Your task to perform on an android device: turn pop-ups off in chrome Image 0: 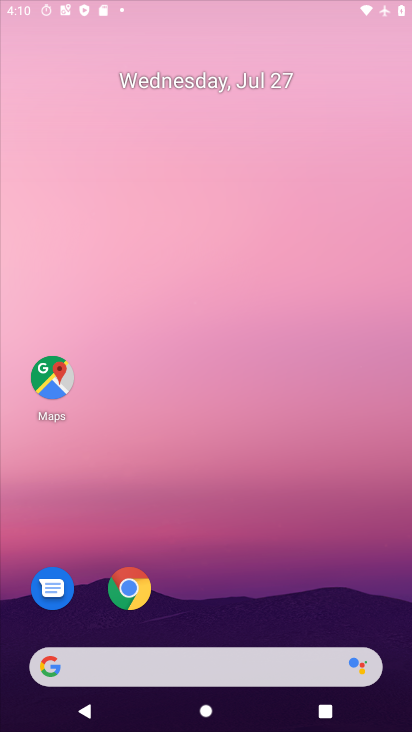
Step 0: press home button
Your task to perform on an android device: turn pop-ups off in chrome Image 1: 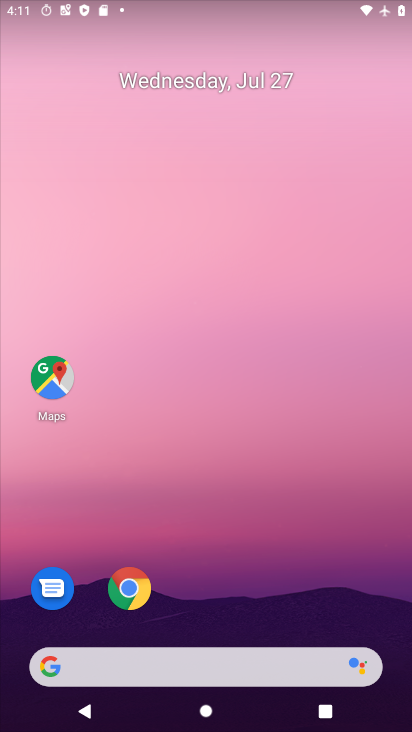
Step 1: drag from (274, 606) to (0, 179)
Your task to perform on an android device: turn pop-ups off in chrome Image 2: 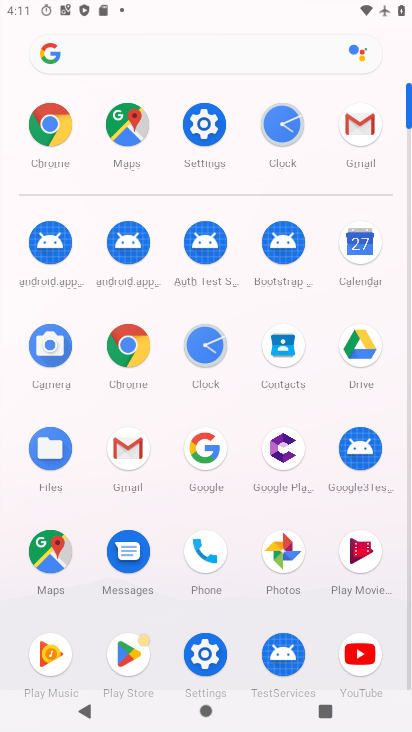
Step 2: click (50, 126)
Your task to perform on an android device: turn pop-ups off in chrome Image 3: 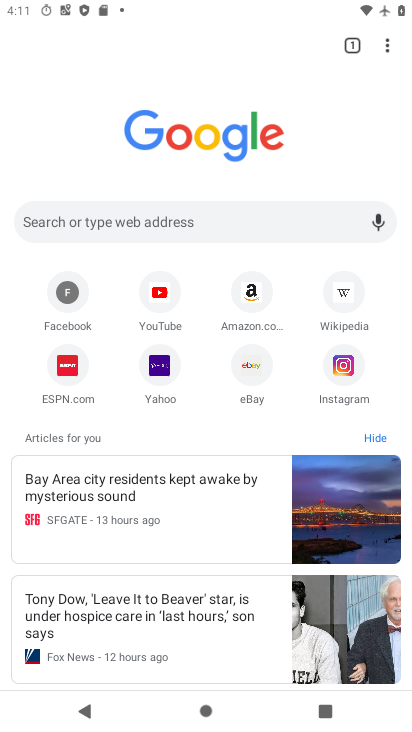
Step 3: click (388, 46)
Your task to perform on an android device: turn pop-ups off in chrome Image 4: 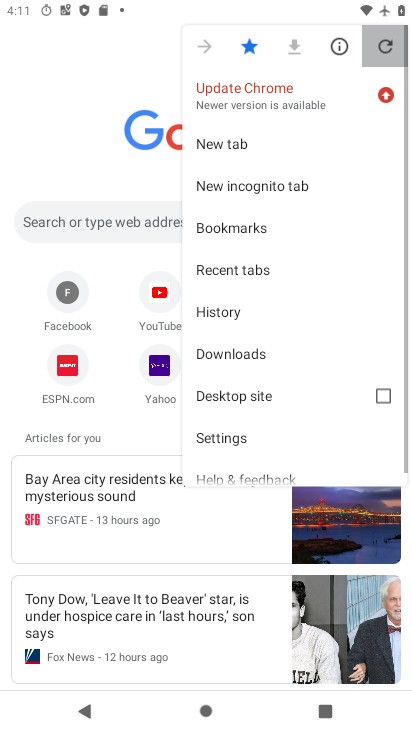
Step 4: drag from (388, 46) to (226, 437)
Your task to perform on an android device: turn pop-ups off in chrome Image 5: 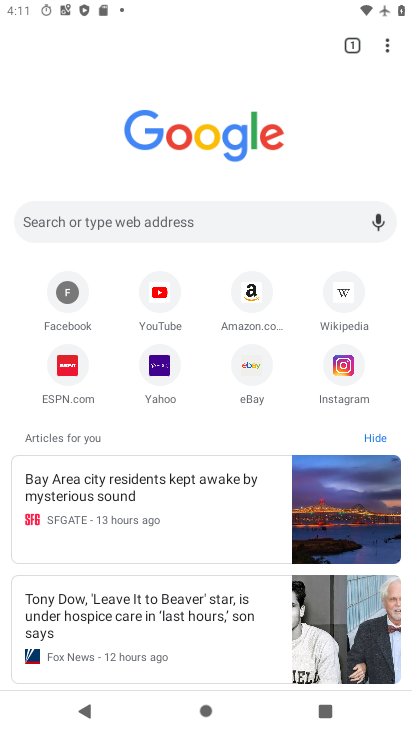
Step 5: click (226, 439)
Your task to perform on an android device: turn pop-ups off in chrome Image 6: 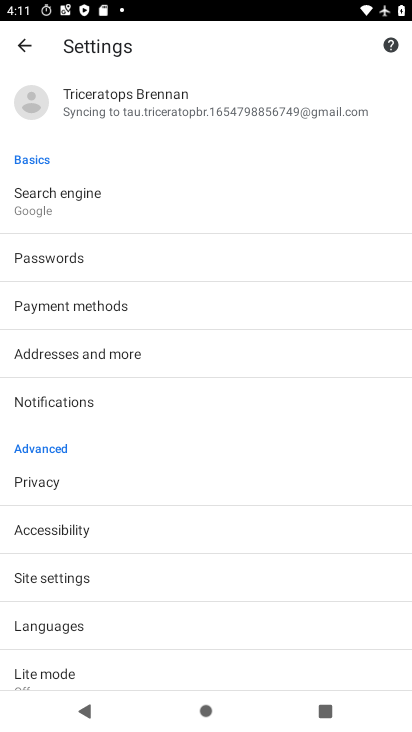
Step 6: click (62, 585)
Your task to perform on an android device: turn pop-ups off in chrome Image 7: 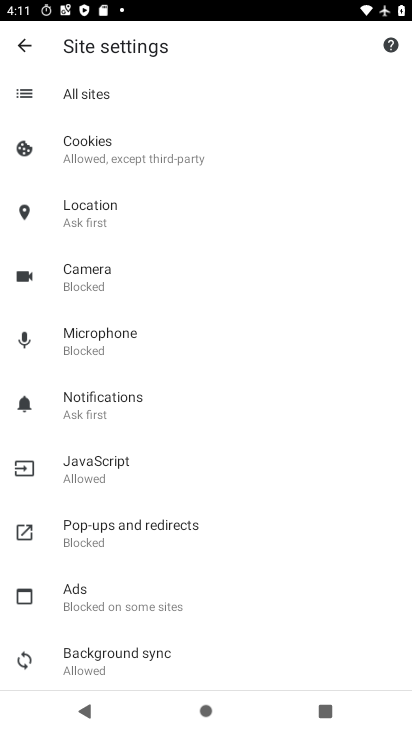
Step 7: click (139, 522)
Your task to perform on an android device: turn pop-ups off in chrome Image 8: 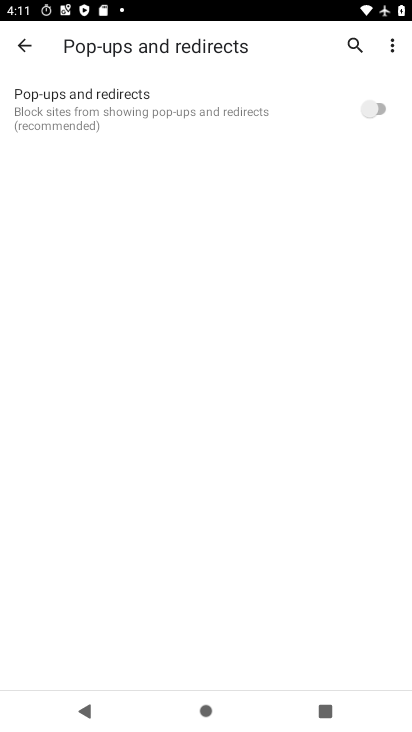
Step 8: task complete